Your task to perform on an android device: Open Google Chrome and click the shortcut for Amazon.com Image 0: 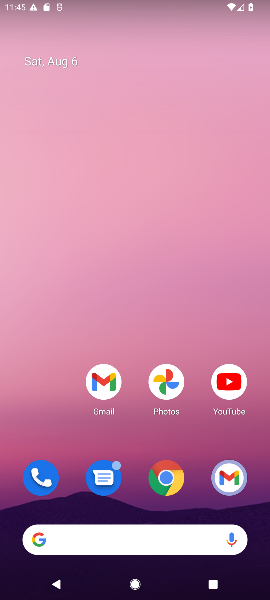
Step 0: click (163, 490)
Your task to perform on an android device: Open Google Chrome and click the shortcut for Amazon.com Image 1: 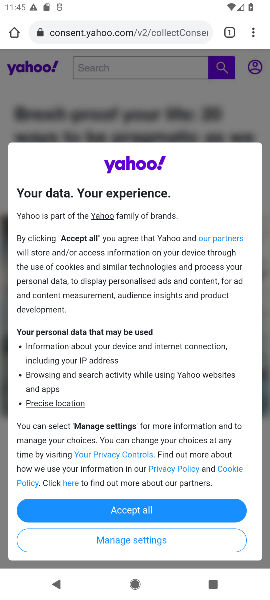
Step 1: click (225, 34)
Your task to perform on an android device: Open Google Chrome and click the shortcut for Amazon.com Image 2: 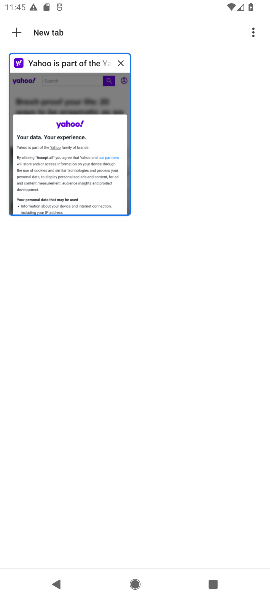
Step 2: click (46, 30)
Your task to perform on an android device: Open Google Chrome and click the shortcut for Amazon.com Image 3: 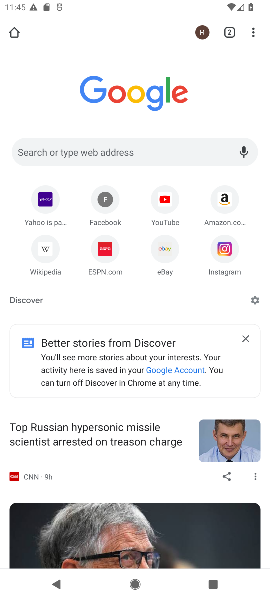
Step 3: click (214, 197)
Your task to perform on an android device: Open Google Chrome and click the shortcut for Amazon.com Image 4: 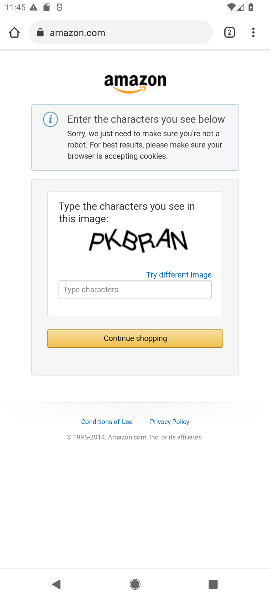
Step 4: task complete